Your task to perform on an android device: check data usage Image 0: 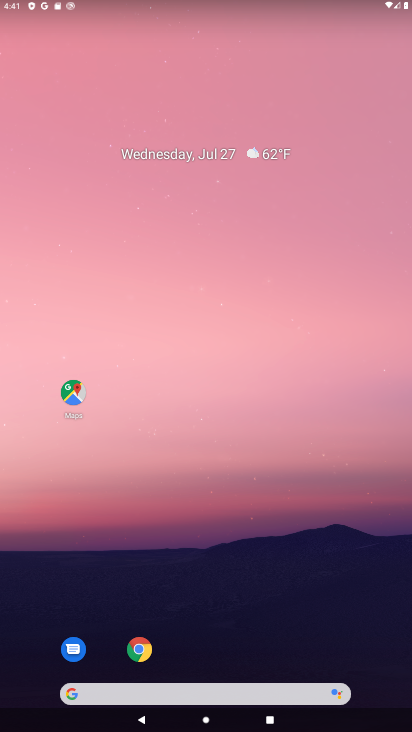
Step 0: drag from (262, 506) to (341, 127)
Your task to perform on an android device: check data usage Image 1: 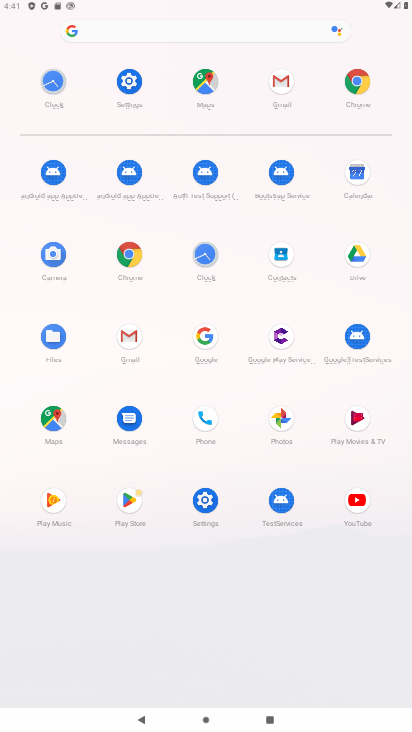
Step 1: click (200, 503)
Your task to perform on an android device: check data usage Image 2: 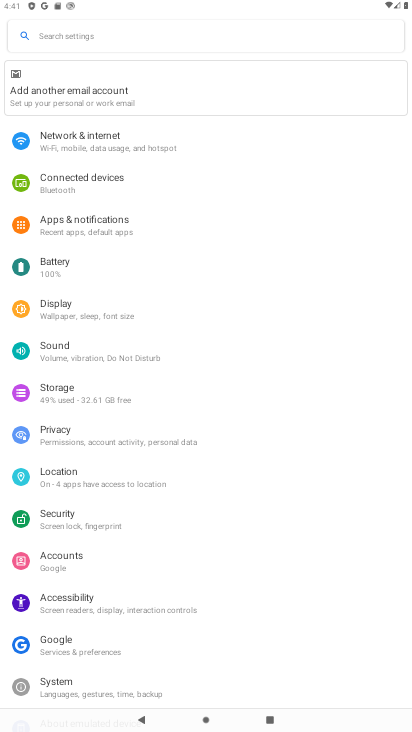
Step 2: task complete